Your task to perform on an android device: Do I have any events this weekend? Image 0: 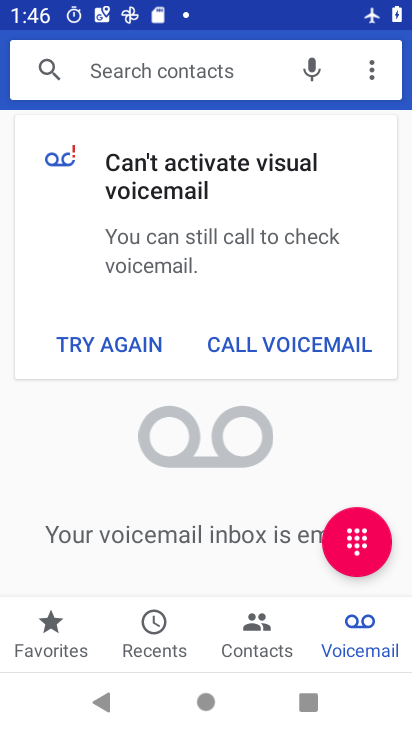
Step 0: press home button
Your task to perform on an android device: Do I have any events this weekend? Image 1: 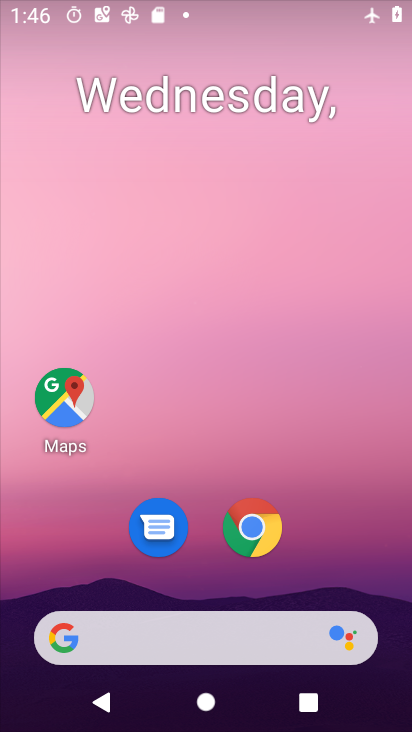
Step 1: drag from (288, 679) to (270, 61)
Your task to perform on an android device: Do I have any events this weekend? Image 2: 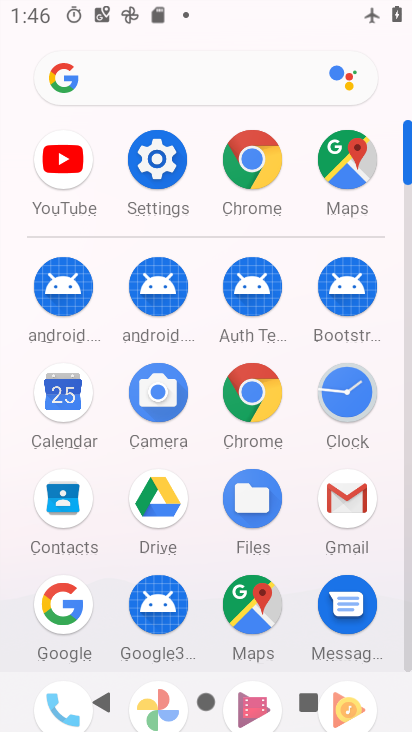
Step 2: click (67, 393)
Your task to perform on an android device: Do I have any events this weekend? Image 3: 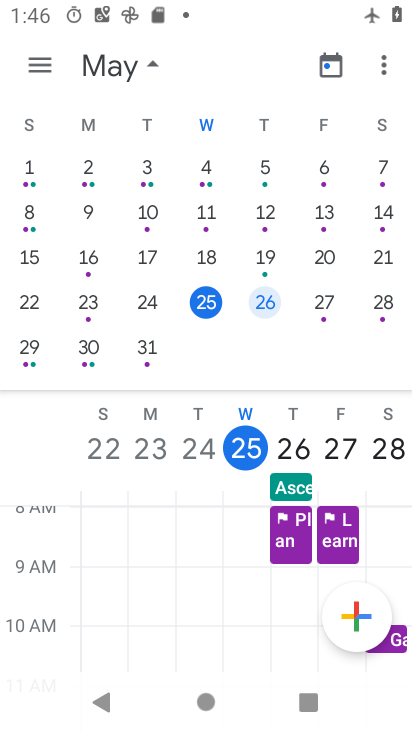
Step 3: click (384, 294)
Your task to perform on an android device: Do I have any events this weekend? Image 4: 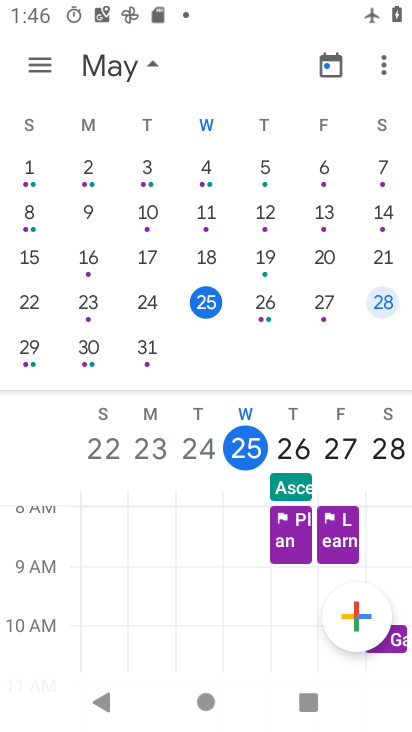
Step 4: click (384, 309)
Your task to perform on an android device: Do I have any events this weekend? Image 5: 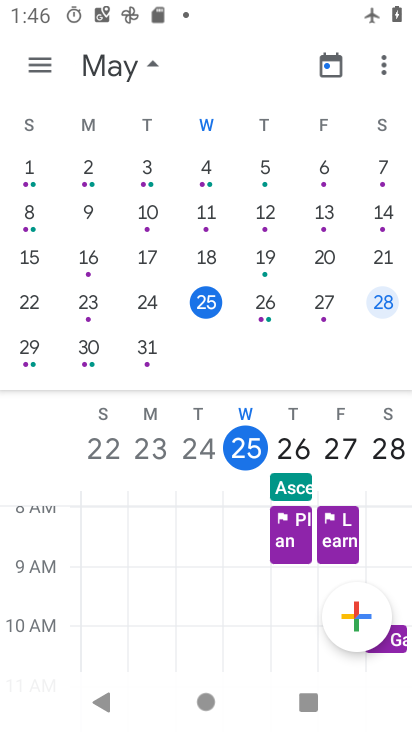
Step 5: task complete